Your task to perform on an android device: change the clock display to analog Image 0: 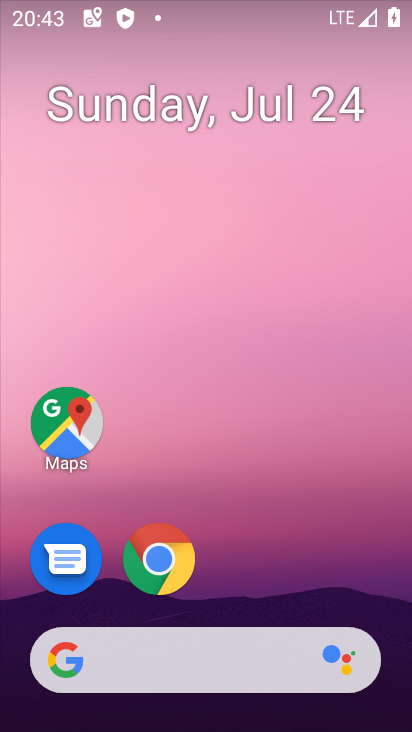
Step 0: press home button
Your task to perform on an android device: change the clock display to analog Image 1: 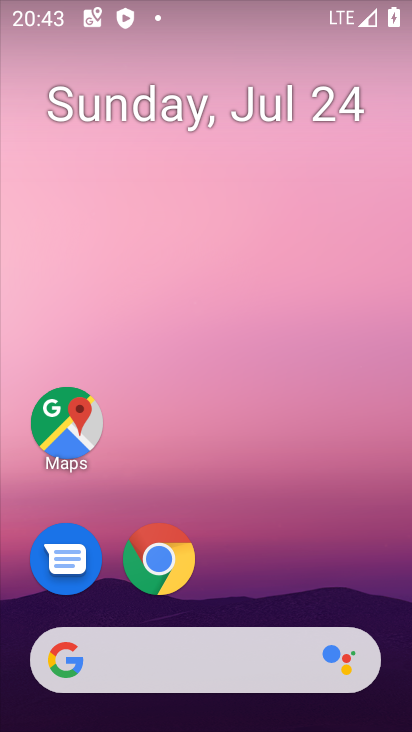
Step 1: drag from (362, 560) to (355, 79)
Your task to perform on an android device: change the clock display to analog Image 2: 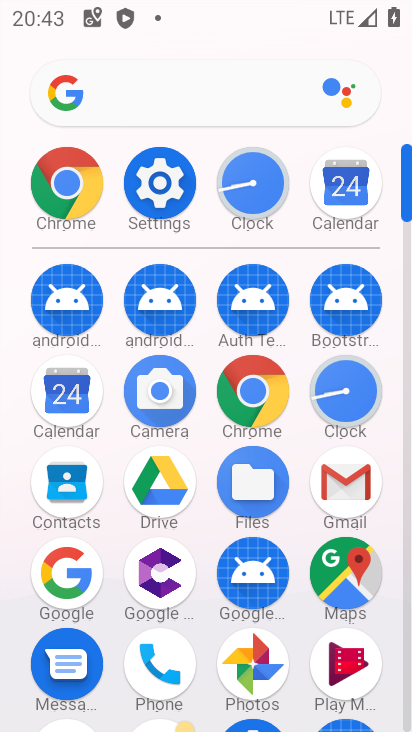
Step 2: click (343, 399)
Your task to perform on an android device: change the clock display to analog Image 3: 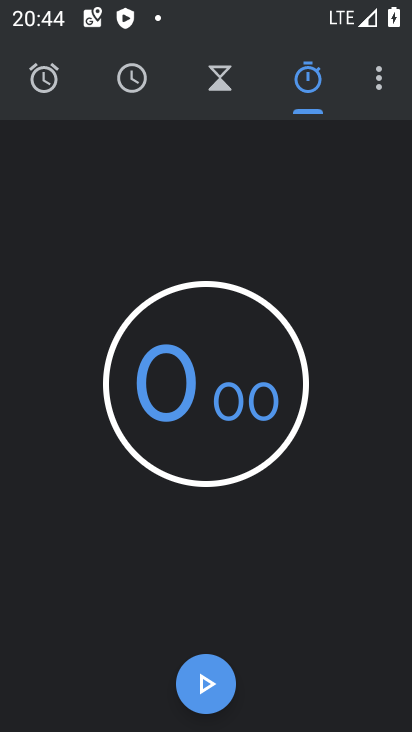
Step 3: click (382, 81)
Your task to perform on an android device: change the clock display to analog Image 4: 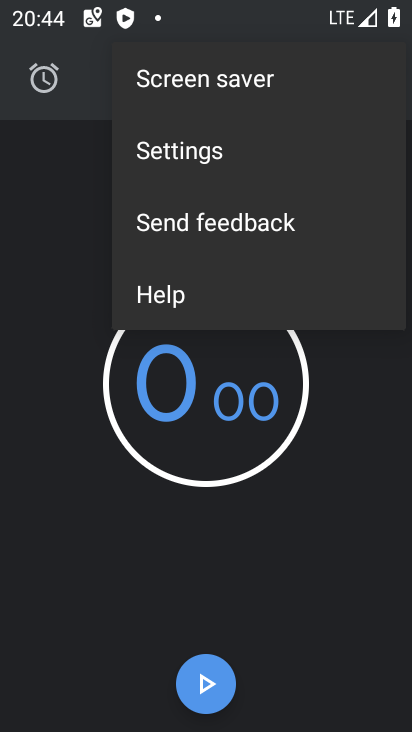
Step 4: click (210, 156)
Your task to perform on an android device: change the clock display to analog Image 5: 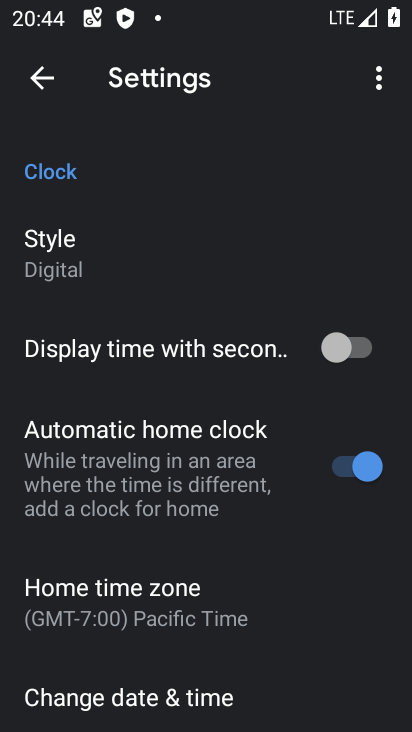
Step 5: drag from (242, 560) to (257, 377)
Your task to perform on an android device: change the clock display to analog Image 6: 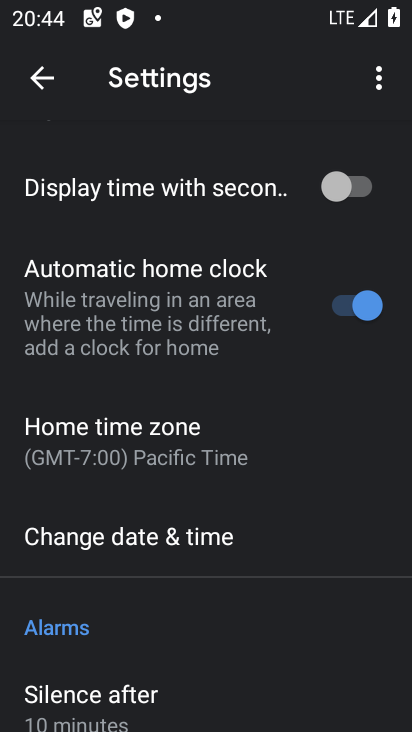
Step 6: drag from (253, 608) to (255, 464)
Your task to perform on an android device: change the clock display to analog Image 7: 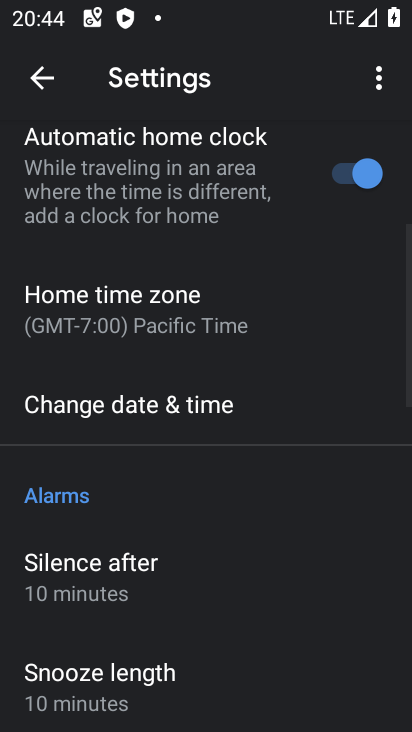
Step 7: drag from (304, 613) to (309, 452)
Your task to perform on an android device: change the clock display to analog Image 8: 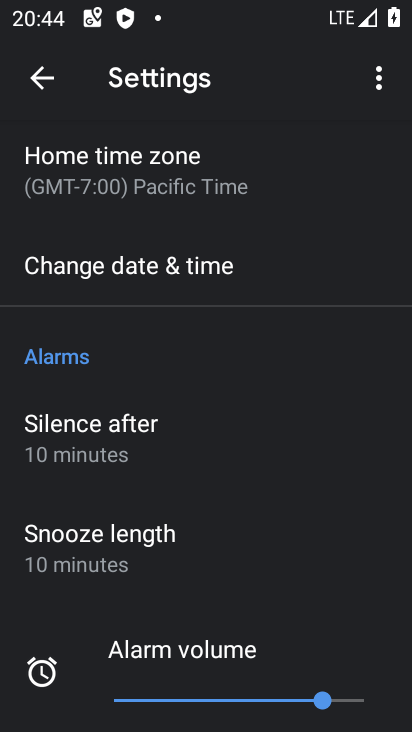
Step 8: drag from (309, 517) to (308, 394)
Your task to perform on an android device: change the clock display to analog Image 9: 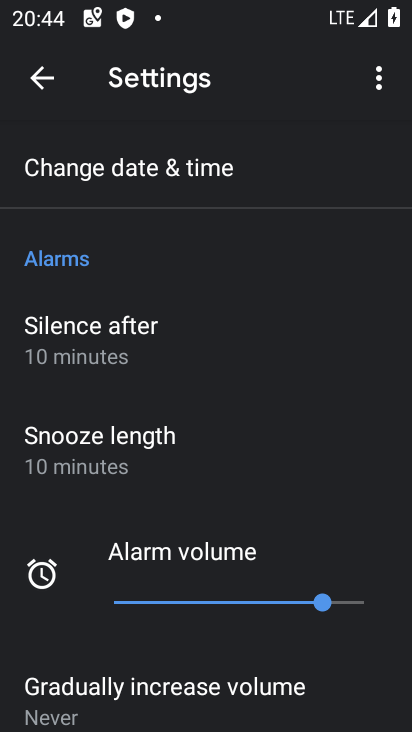
Step 9: drag from (308, 531) to (305, 389)
Your task to perform on an android device: change the clock display to analog Image 10: 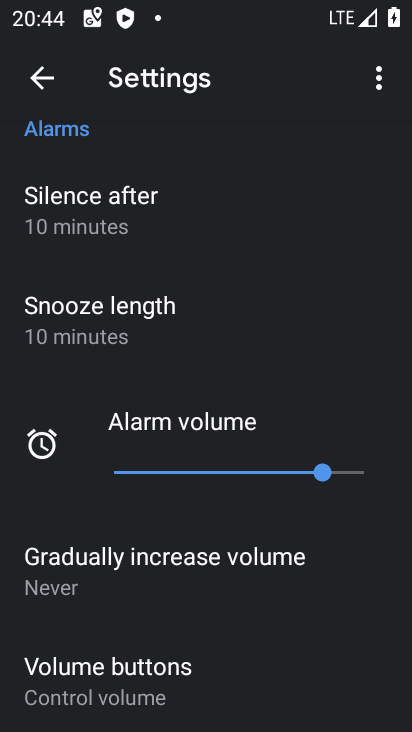
Step 10: drag from (321, 563) to (325, 405)
Your task to perform on an android device: change the clock display to analog Image 11: 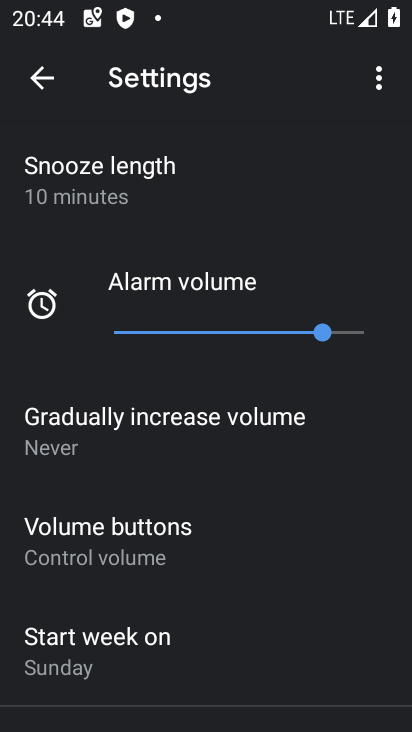
Step 11: drag from (357, 354) to (363, 476)
Your task to perform on an android device: change the clock display to analog Image 12: 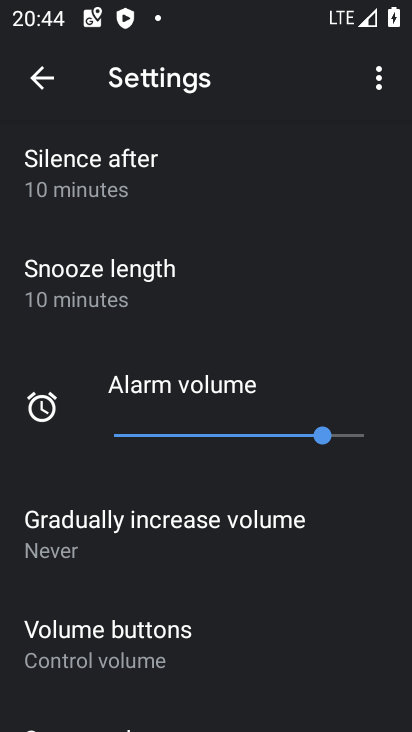
Step 12: drag from (368, 288) to (380, 408)
Your task to perform on an android device: change the clock display to analog Image 13: 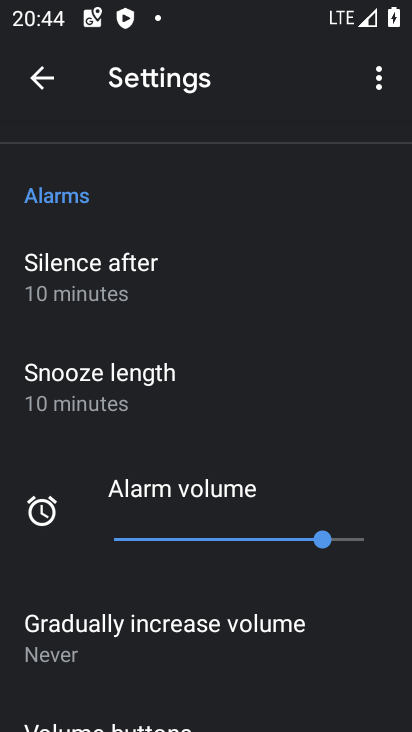
Step 13: drag from (361, 255) to (362, 472)
Your task to perform on an android device: change the clock display to analog Image 14: 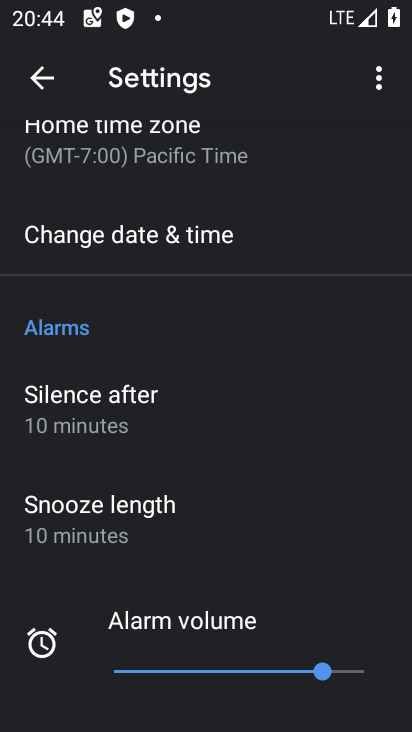
Step 14: drag from (351, 216) to (335, 463)
Your task to perform on an android device: change the clock display to analog Image 15: 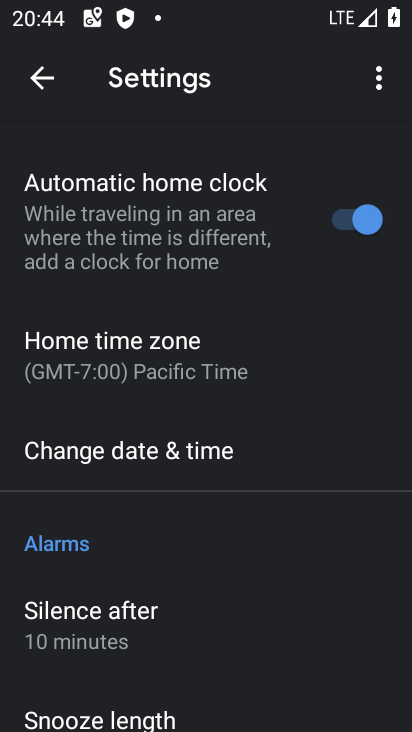
Step 15: drag from (298, 144) to (301, 394)
Your task to perform on an android device: change the clock display to analog Image 16: 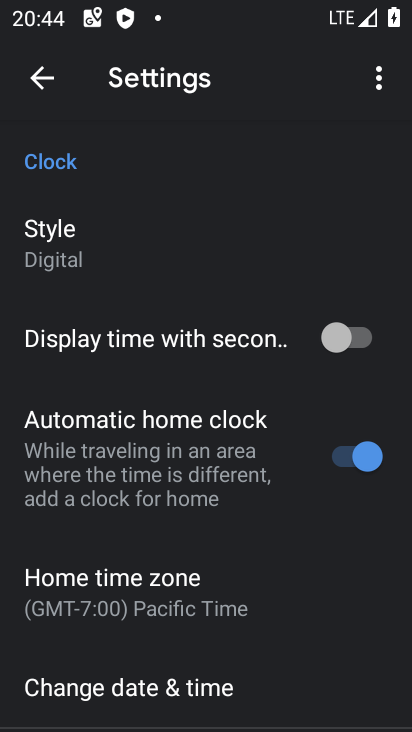
Step 16: click (66, 254)
Your task to perform on an android device: change the clock display to analog Image 17: 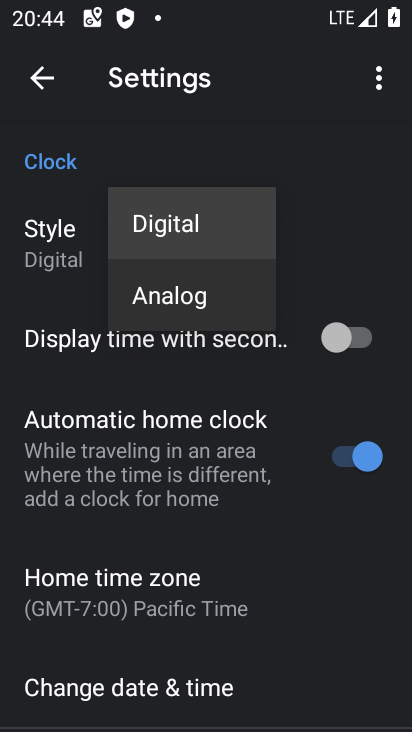
Step 17: click (172, 299)
Your task to perform on an android device: change the clock display to analog Image 18: 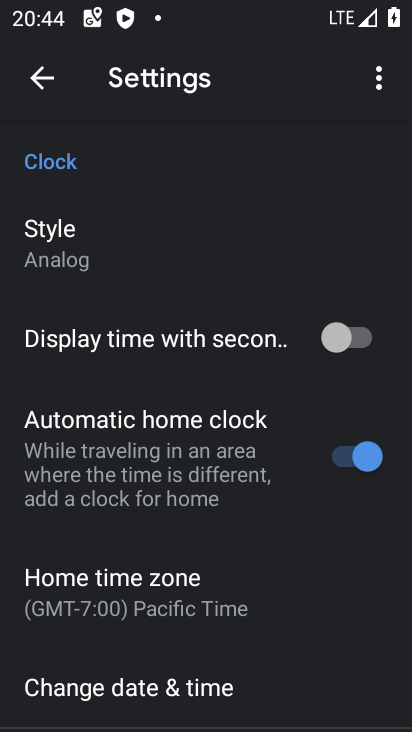
Step 18: task complete